Your task to perform on an android device: turn on sleep mode Image 0: 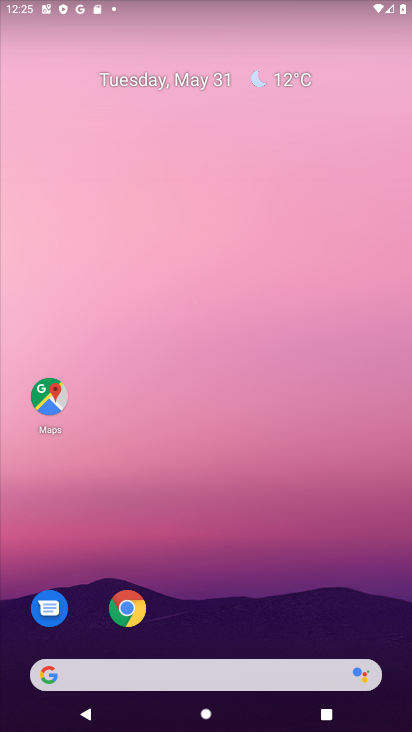
Step 0: drag from (230, 624) to (293, 53)
Your task to perform on an android device: turn on sleep mode Image 1: 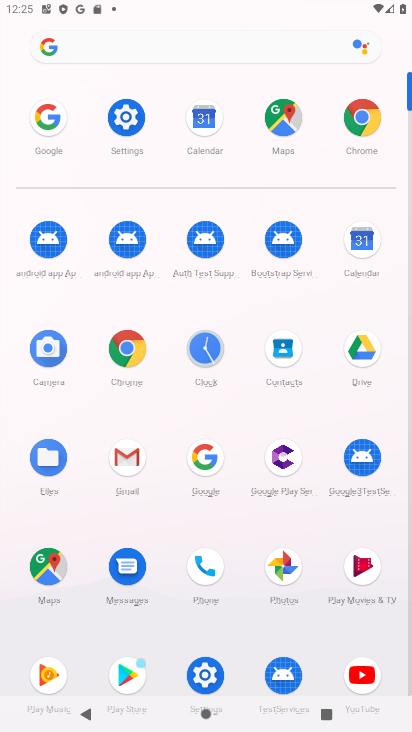
Step 1: click (126, 118)
Your task to perform on an android device: turn on sleep mode Image 2: 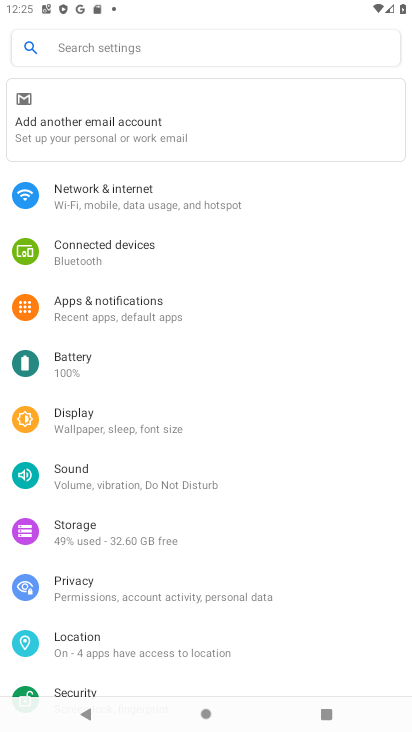
Step 2: click (112, 418)
Your task to perform on an android device: turn on sleep mode Image 3: 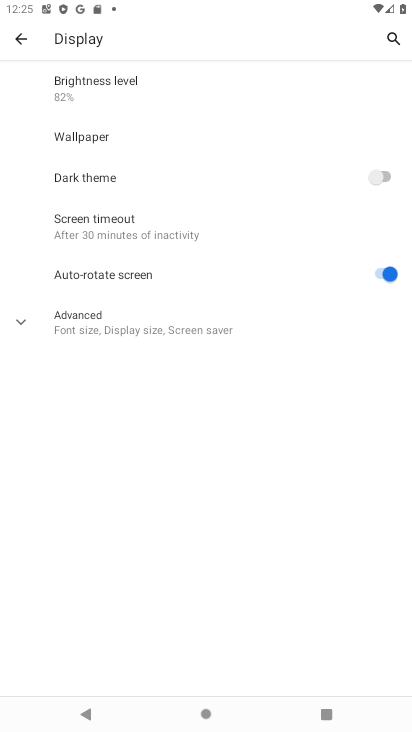
Step 3: click (164, 231)
Your task to perform on an android device: turn on sleep mode Image 4: 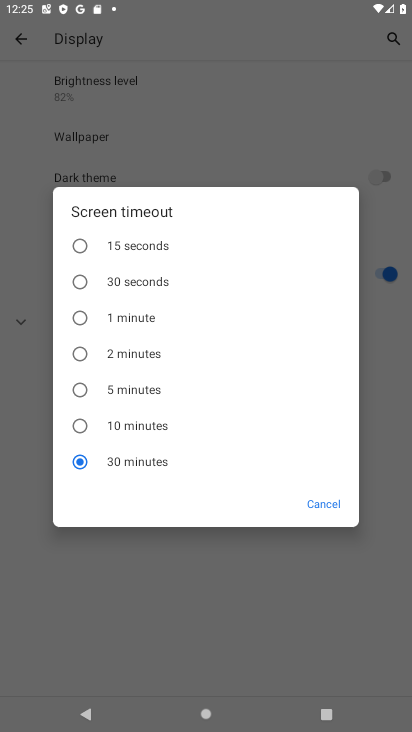
Step 4: task complete